Your task to perform on an android device: turn on the 24-hour format for clock Image 0: 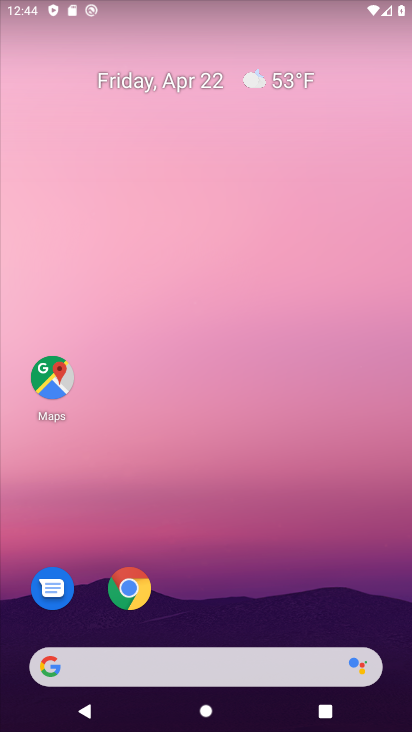
Step 0: drag from (191, 597) to (348, 53)
Your task to perform on an android device: turn on the 24-hour format for clock Image 1: 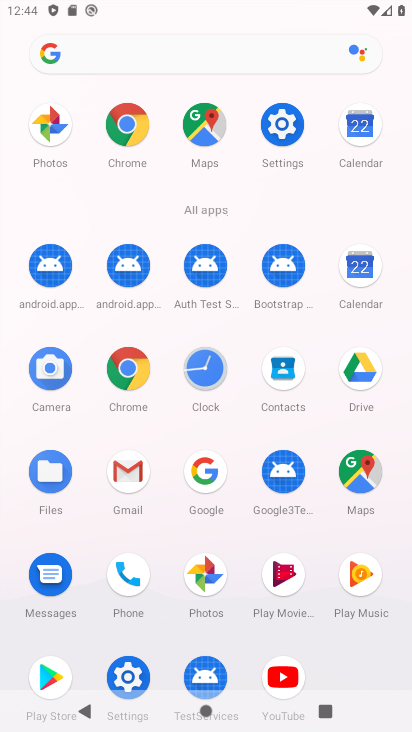
Step 1: click (208, 372)
Your task to perform on an android device: turn on the 24-hour format for clock Image 2: 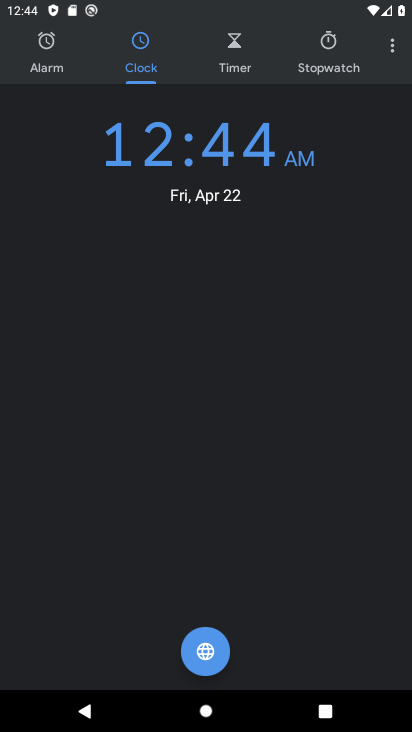
Step 2: click (391, 46)
Your task to perform on an android device: turn on the 24-hour format for clock Image 3: 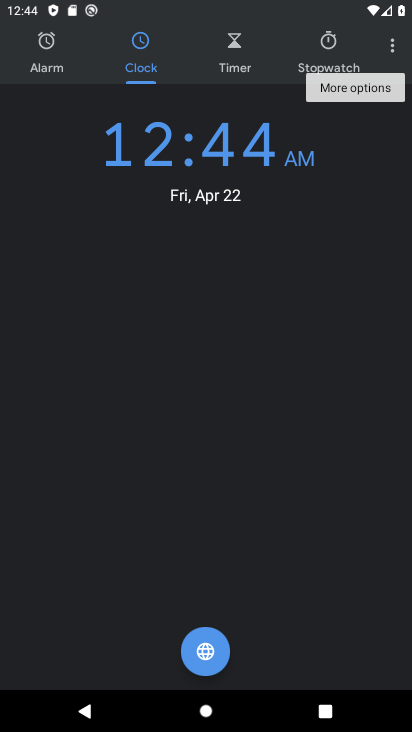
Step 3: click (395, 40)
Your task to perform on an android device: turn on the 24-hour format for clock Image 4: 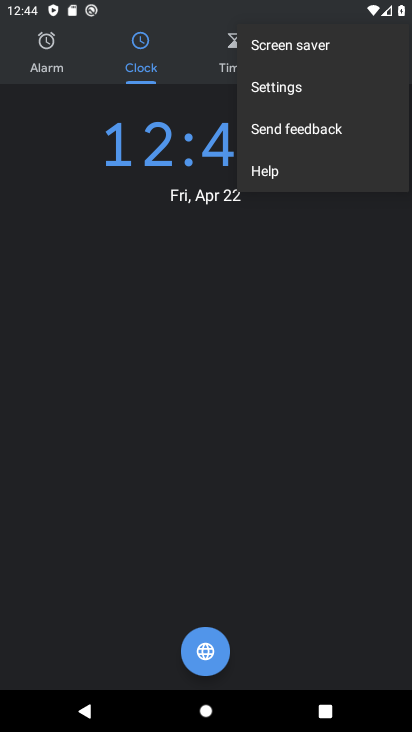
Step 4: click (305, 93)
Your task to perform on an android device: turn on the 24-hour format for clock Image 5: 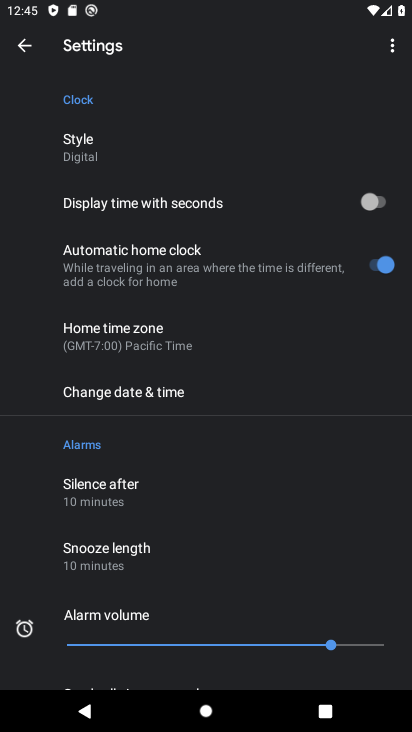
Step 5: drag from (210, 588) to (282, 120)
Your task to perform on an android device: turn on the 24-hour format for clock Image 6: 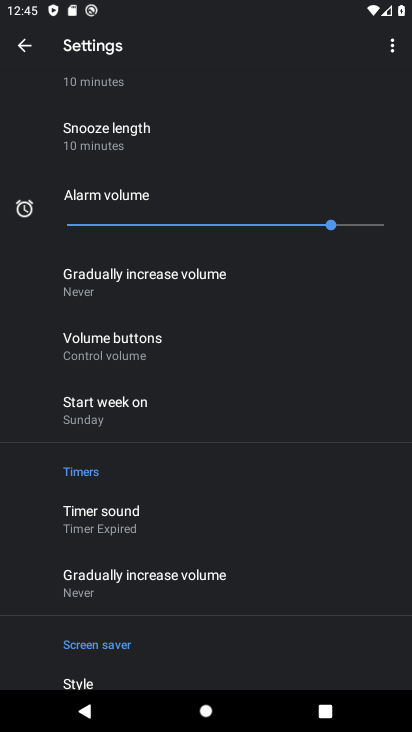
Step 6: drag from (216, 278) to (180, 676)
Your task to perform on an android device: turn on the 24-hour format for clock Image 7: 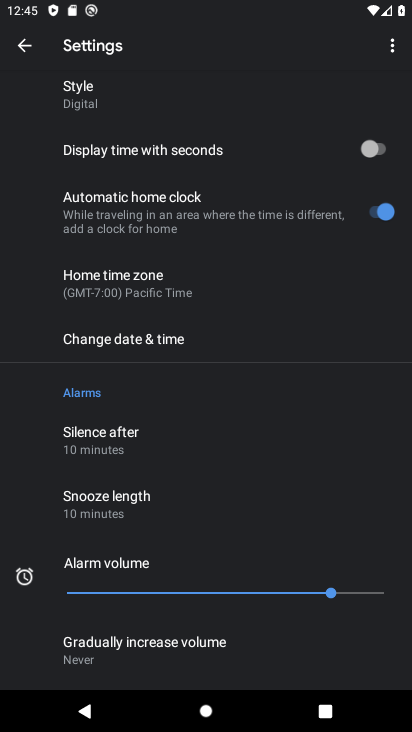
Step 7: click (104, 341)
Your task to perform on an android device: turn on the 24-hour format for clock Image 8: 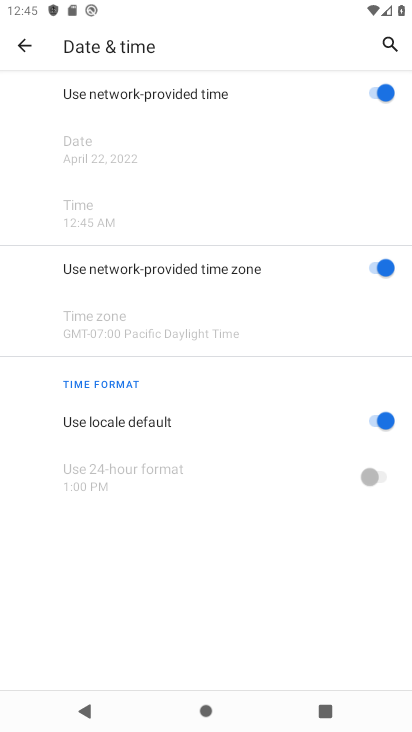
Step 8: click (375, 418)
Your task to perform on an android device: turn on the 24-hour format for clock Image 9: 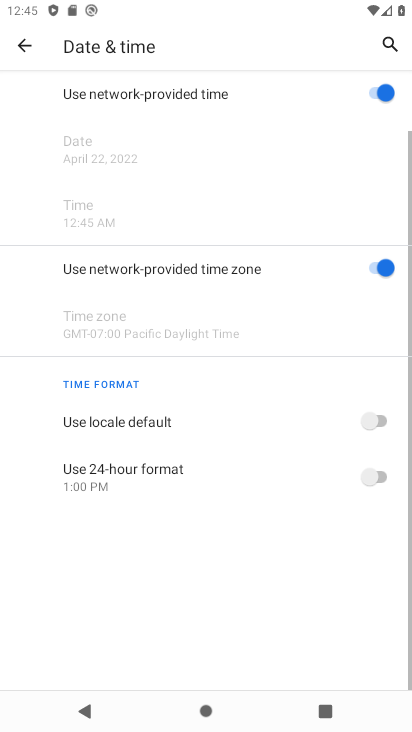
Step 9: click (374, 480)
Your task to perform on an android device: turn on the 24-hour format for clock Image 10: 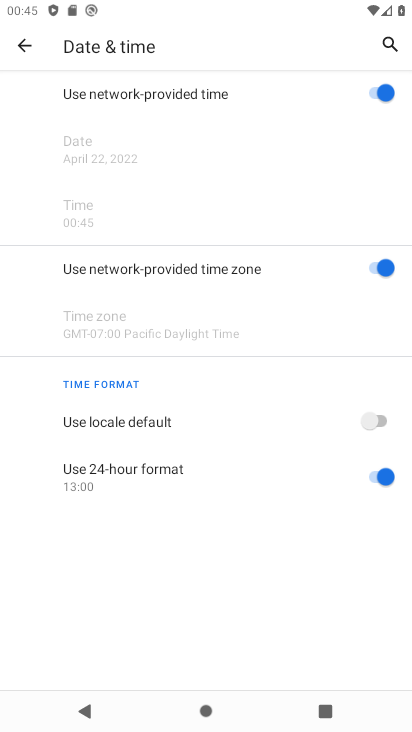
Step 10: task complete